Your task to perform on an android device: check android version Image 0: 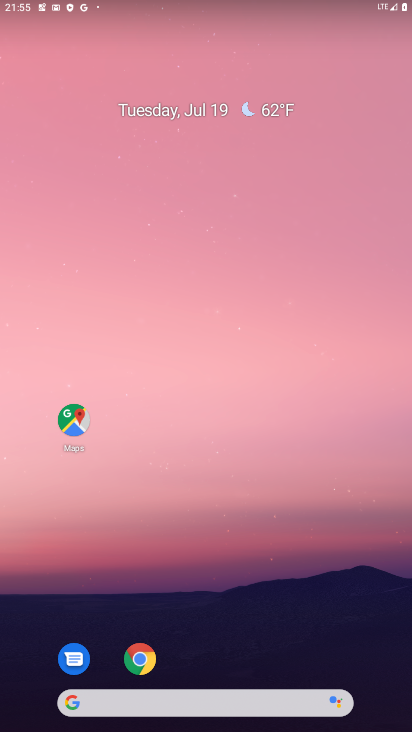
Step 0: drag from (294, 619) to (298, 23)
Your task to perform on an android device: check android version Image 1: 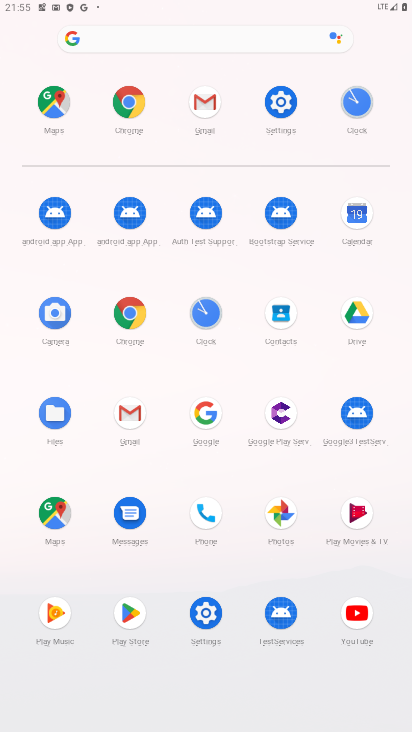
Step 1: click (204, 607)
Your task to perform on an android device: check android version Image 2: 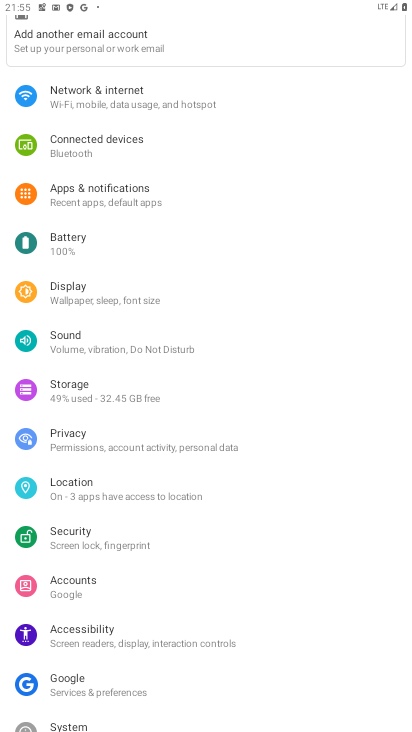
Step 2: drag from (228, 593) to (201, 161)
Your task to perform on an android device: check android version Image 3: 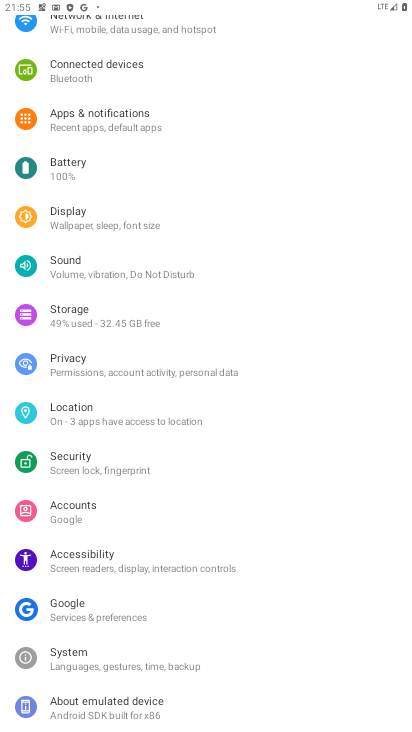
Step 3: click (101, 712)
Your task to perform on an android device: check android version Image 4: 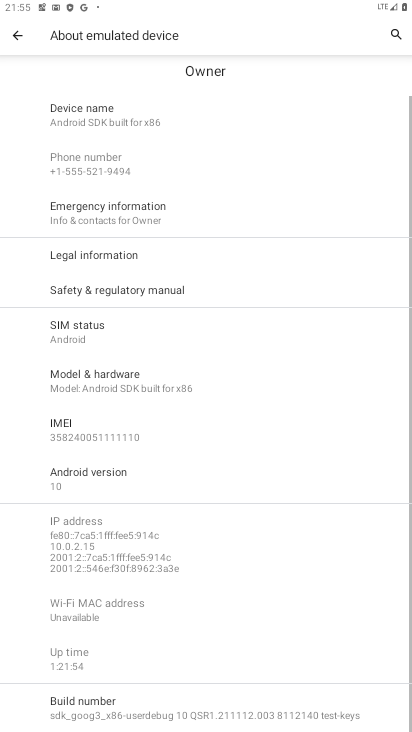
Step 4: click (61, 477)
Your task to perform on an android device: check android version Image 5: 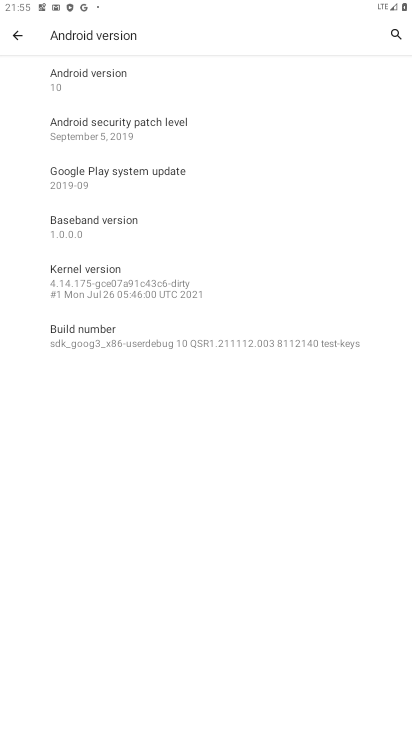
Step 5: task complete